Your task to perform on an android device: open chrome privacy settings Image 0: 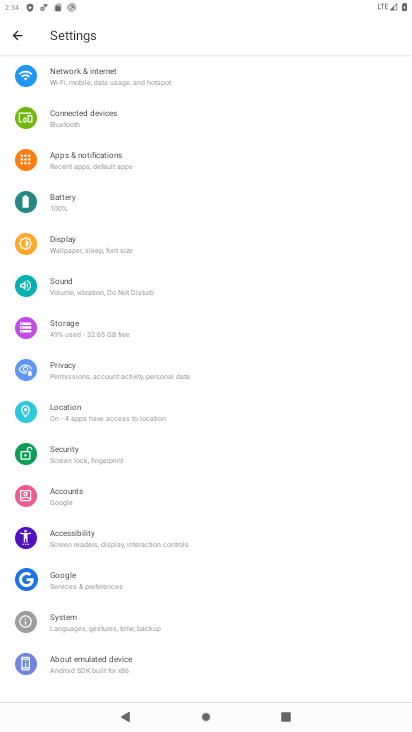
Step 0: press home button
Your task to perform on an android device: open chrome privacy settings Image 1: 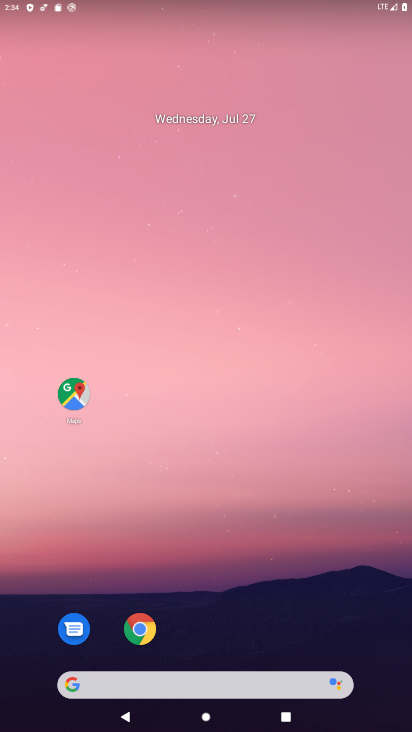
Step 1: click (137, 623)
Your task to perform on an android device: open chrome privacy settings Image 2: 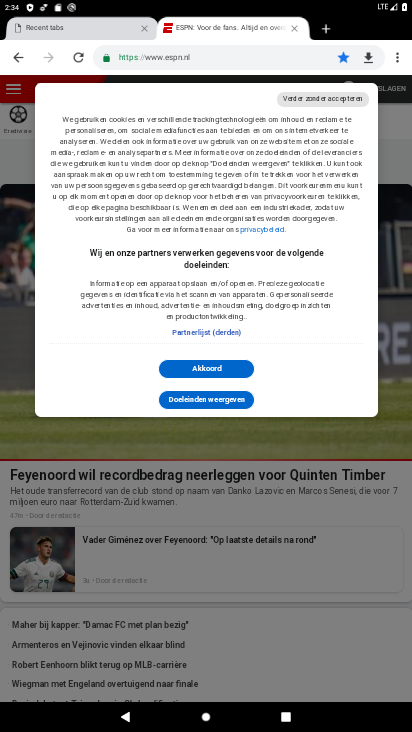
Step 2: click (137, 623)
Your task to perform on an android device: open chrome privacy settings Image 3: 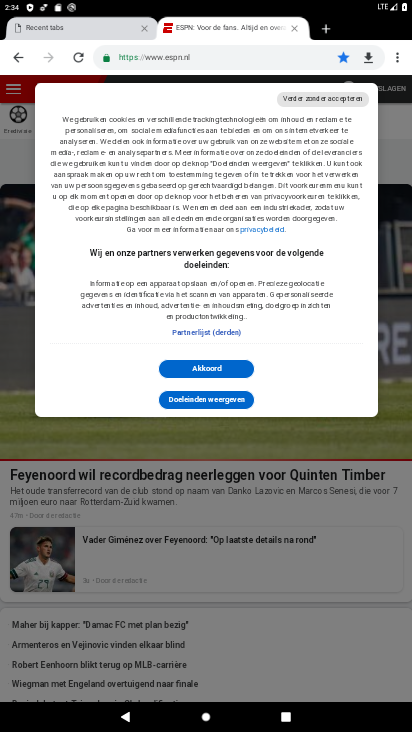
Step 3: click (403, 57)
Your task to perform on an android device: open chrome privacy settings Image 4: 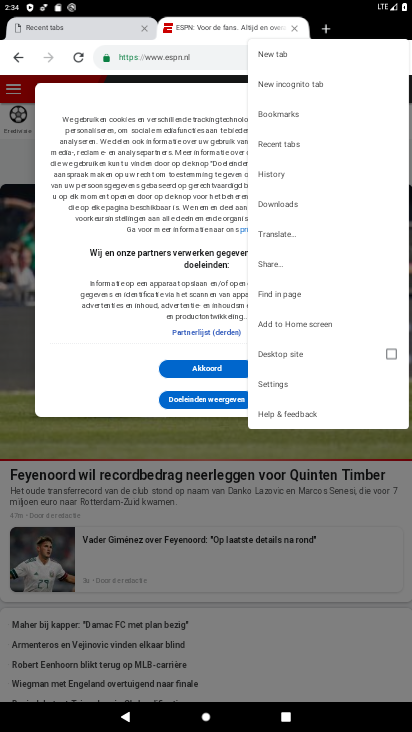
Step 4: click (312, 383)
Your task to perform on an android device: open chrome privacy settings Image 5: 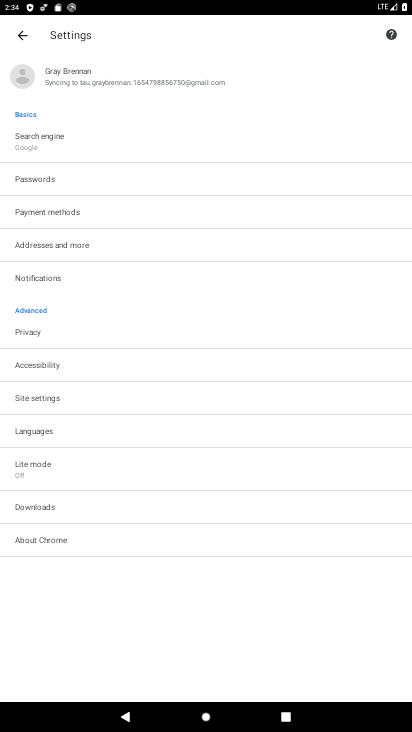
Step 5: click (79, 331)
Your task to perform on an android device: open chrome privacy settings Image 6: 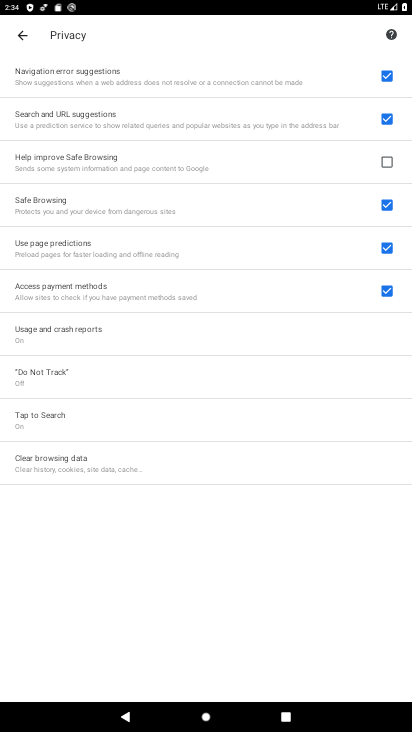
Step 6: task complete